Your task to perform on an android device: Open battery settings Image 0: 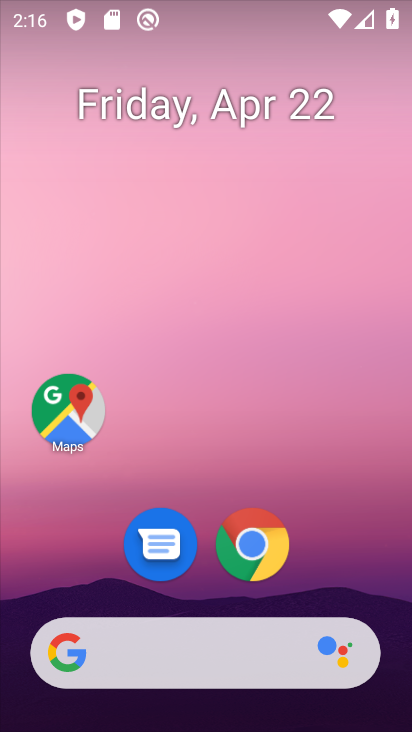
Step 0: drag from (216, 608) to (314, 26)
Your task to perform on an android device: Open battery settings Image 1: 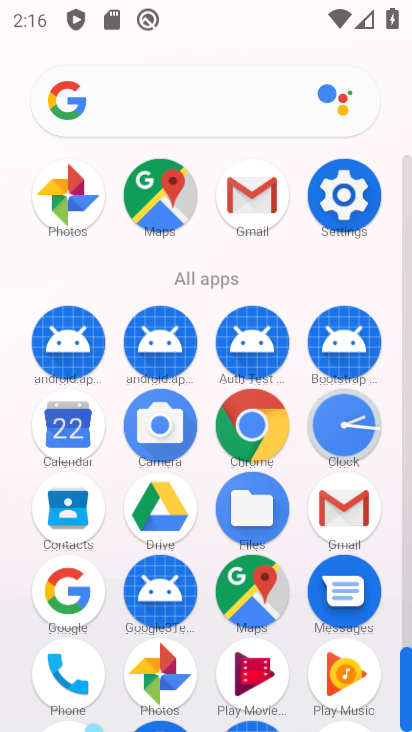
Step 1: click (328, 188)
Your task to perform on an android device: Open battery settings Image 2: 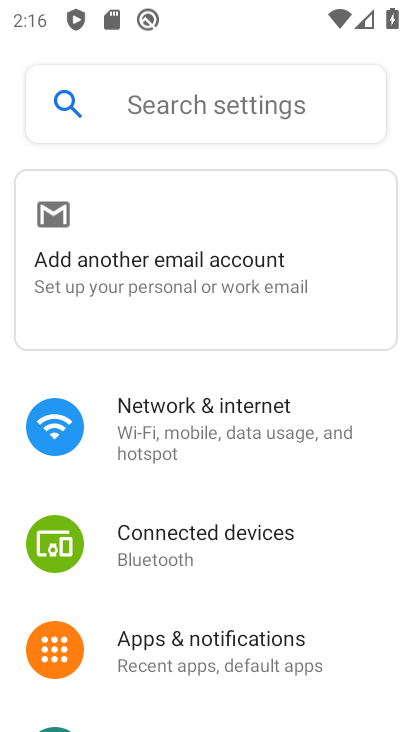
Step 2: drag from (197, 629) to (163, 261)
Your task to perform on an android device: Open battery settings Image 3: 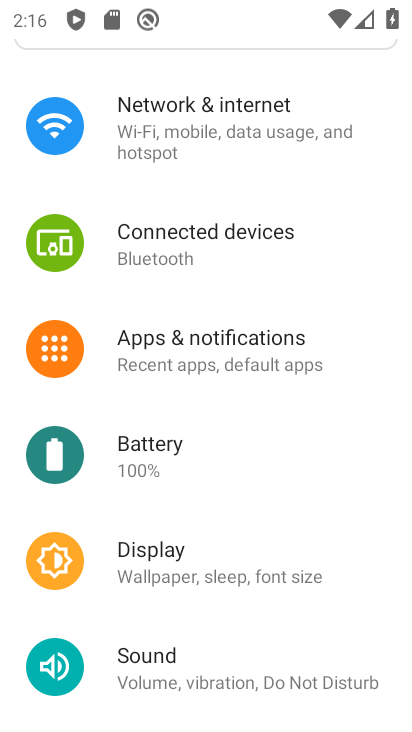
Step 3: click (145, 427)
Your task to perform on an android device: Open battery settings Image 4: 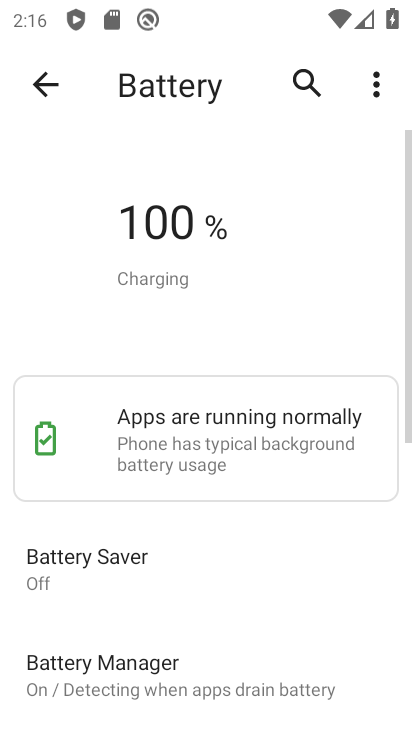
Step 4: task complete